Your task to perform on an android device: change the upload size in google photos Image 0: 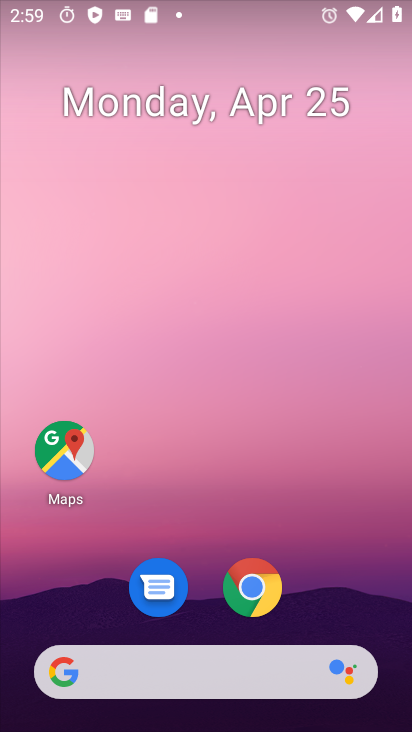
Step 0: drag from (349, 605) to (328, 192)
Your task to perform on an android device: change the upload size in google photos Image 1: 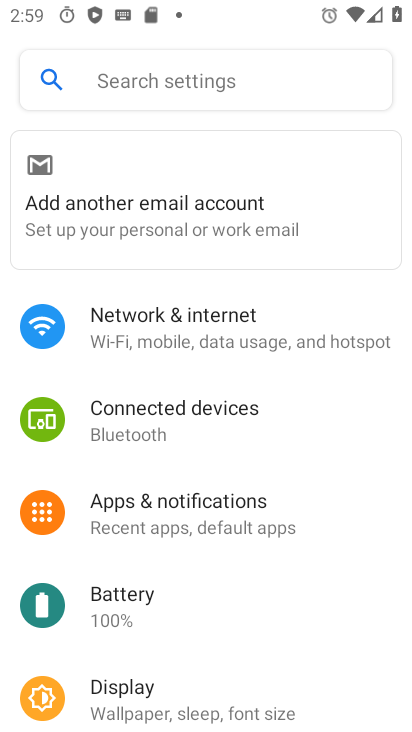
Step 1: press home button
Your task to perform on an android device: change the upload size in google photos Image 2: 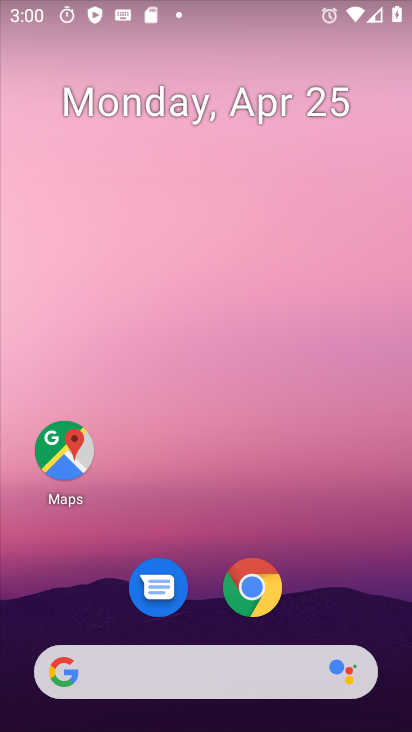
Step 2: drag from (330, 622) to (259, 257)
Your task to perform on an android device: change the upload size in google photos Image 3: 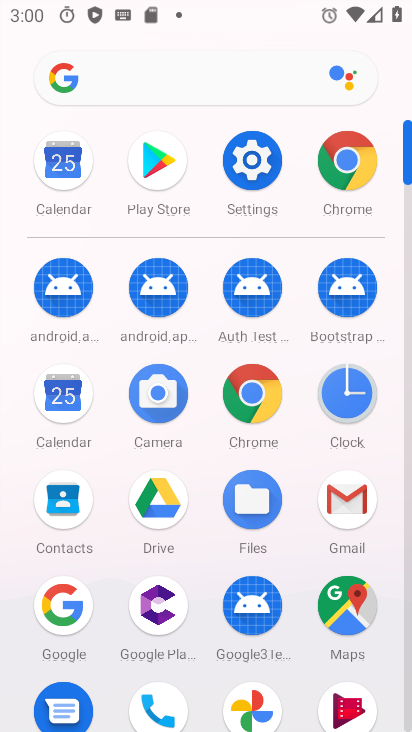
Step 3: drag from (293, 671) to (298, 238)
Your task to perform on an android device: change the upload size in google photos Image 4: 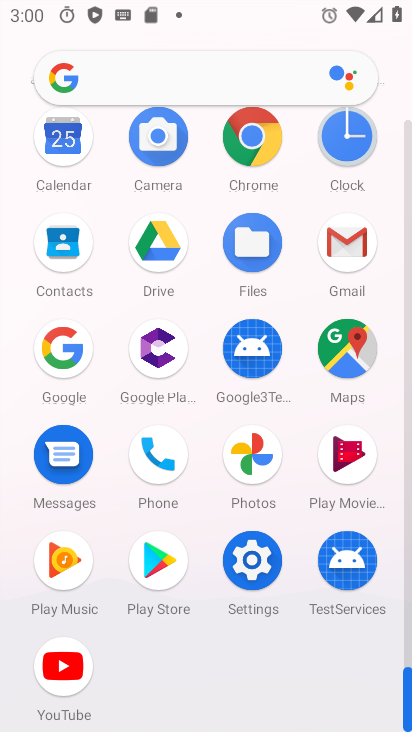
Step 4: click (253, 466)
Your task to perform on an android device: change the upload size in google photos Image 5: 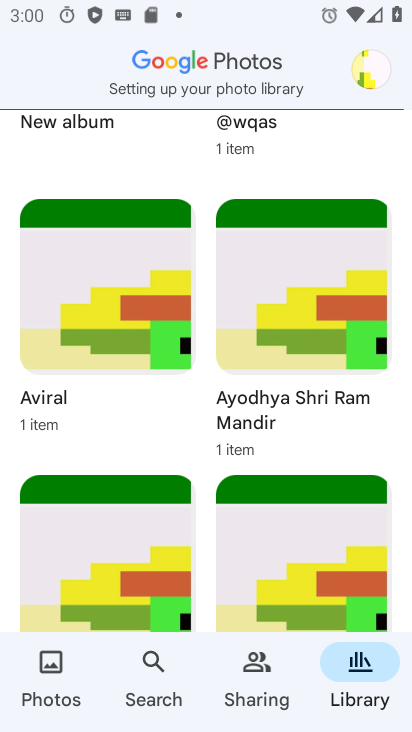
Step 5: drag from (204, 158) to (249, 727)
Your task to perform on an android device: change the upload size in google photos Image 6: 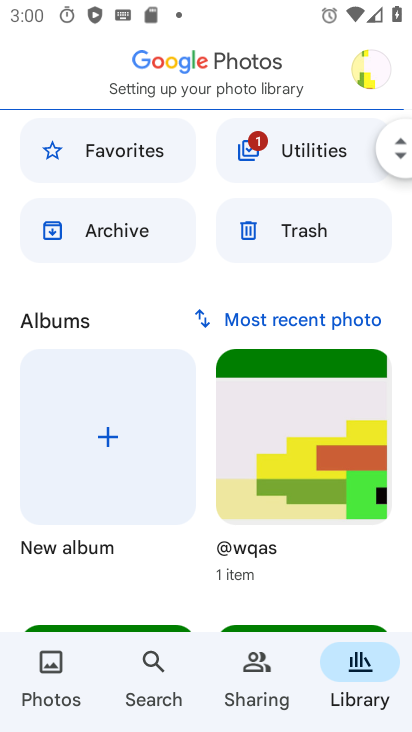
Step 6: click (366, 71)
Your task to perform on an android device: change the upload size in google photos Image 7: 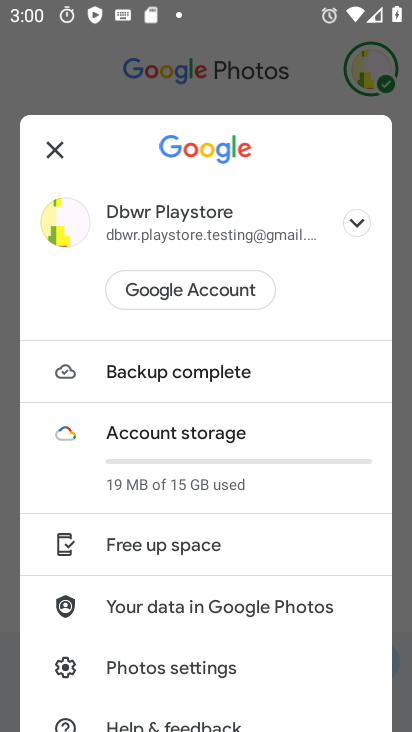
Step 7: click (209, 371)
Your task to perform on an android device: change the upload size in google photos Image 8: 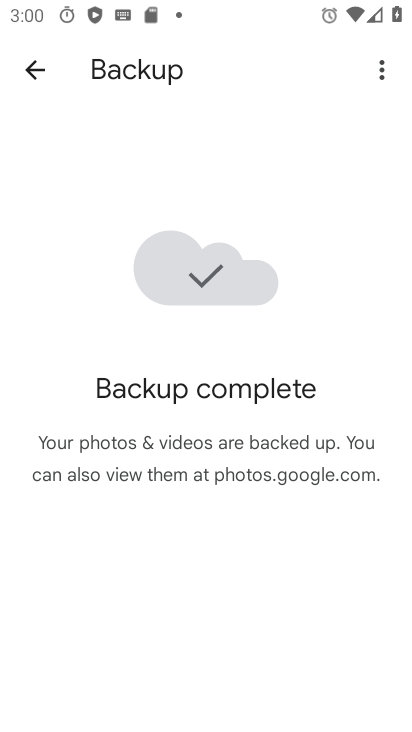
Step 8: click (33, 65)
Your task to perform on an android device: change the upload size in google photos Image 9: 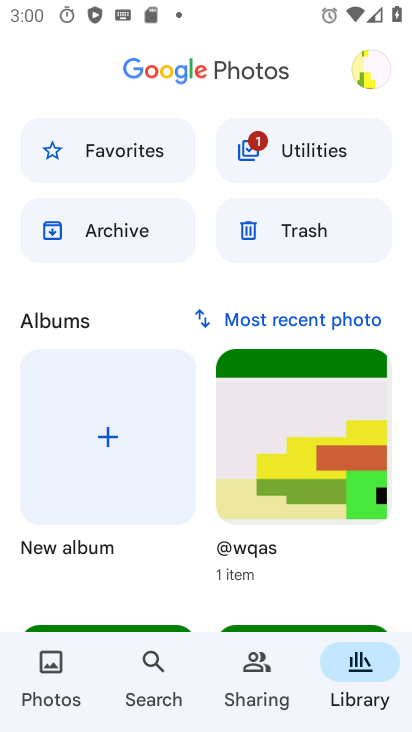
Step 9: click (368, 64)
Your task to perform on an android device: change the upload size in google photos Image 10: 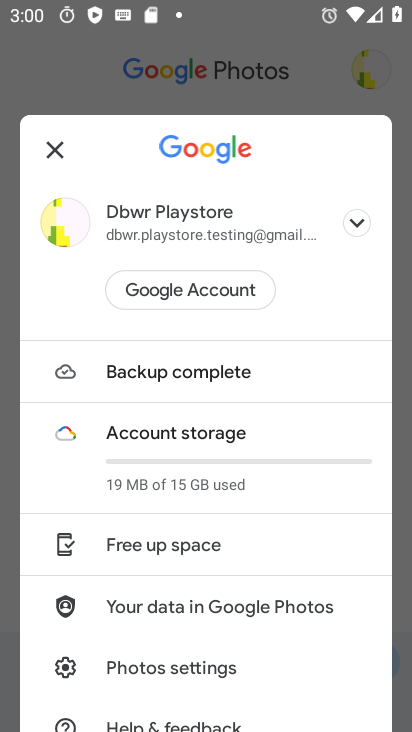
Step 10: click (202, 442)
Your task to perform on an android device: change the upload size in google photos Image 11: 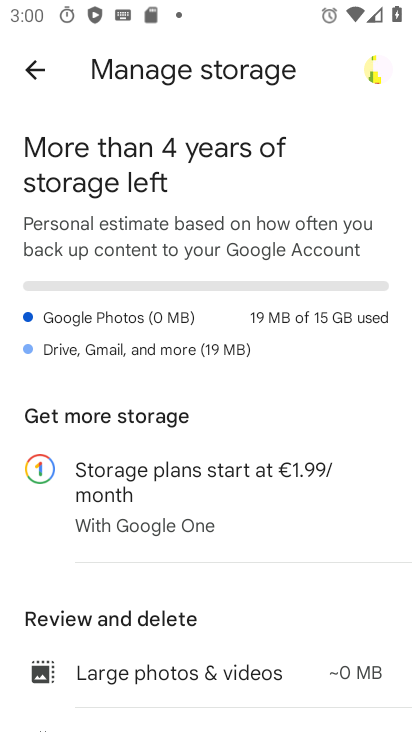
Step 11: drag from (224, 558) to (272, 132)
Your task to perform on an android device: change the upload size in google photos Image 12: 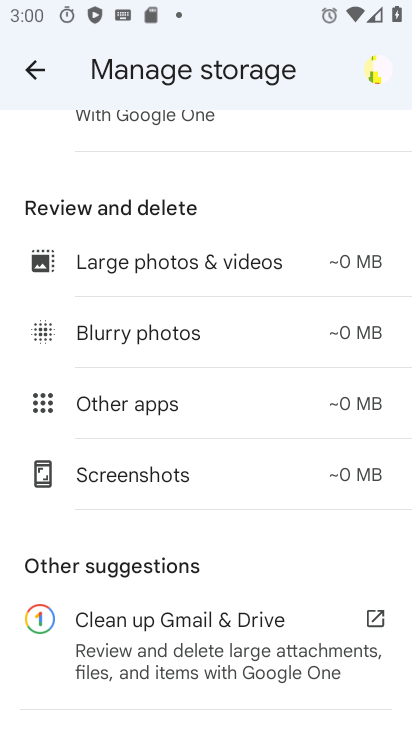
Step 12: drag from (232, 595) to (272, 690)
Your task to perform on an android device: change the upload size in google photos Image 13: 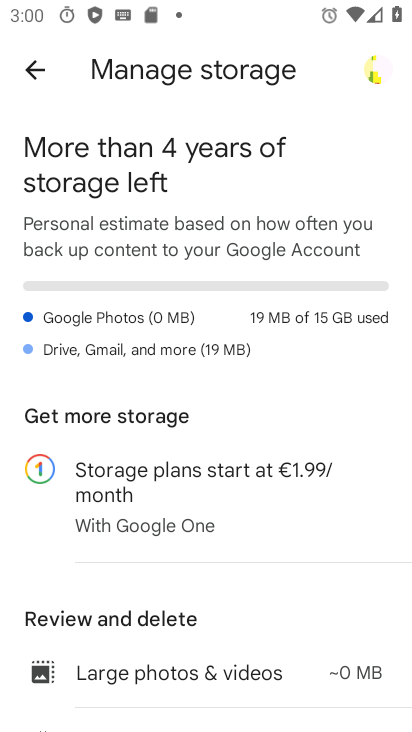
Step 13: click (184, 304)
Your task to perform on an android device: change the upload size in google photos Image 14: 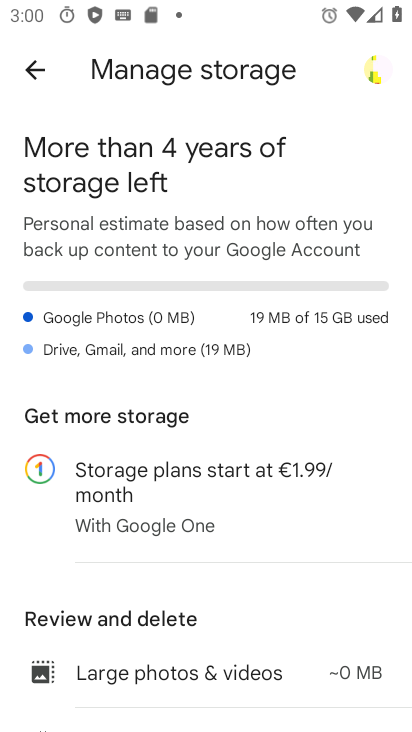
Step 14: drag from (213, 480) to (282, 230)
Your task to perform on an android device: change the upload size in google photos Image 15: 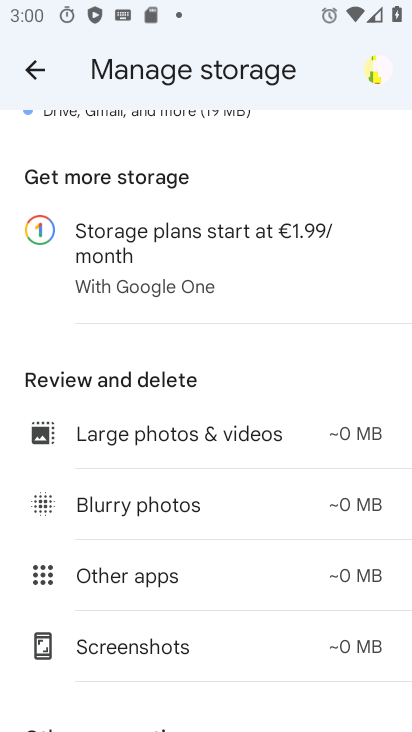
Step 15: drag from (268, 460) to (319, 196)
Your task to perform on an android device: change the upload size in google photos Image 16: 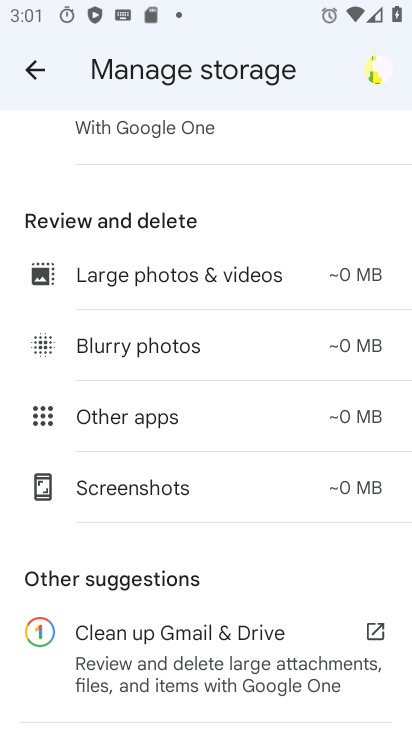
Step 16: drag from (202, 644) to (263, 218)
Your task to perform on an android device: change the upload size in google photos Image 17: 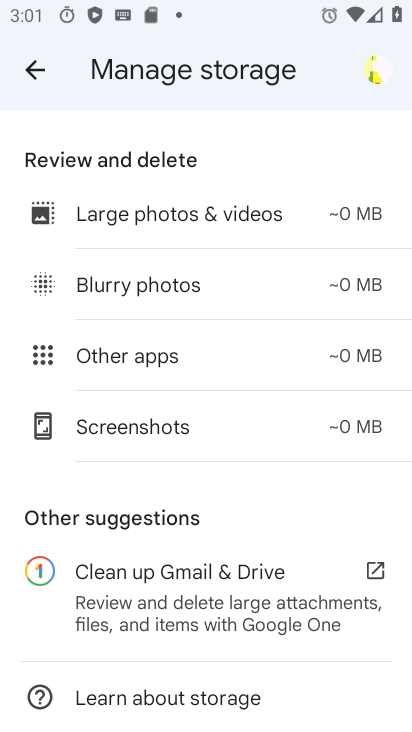
Step 17: click (32, 75)
Your task to perform on an android device: change the upload size in google photos Image 18: 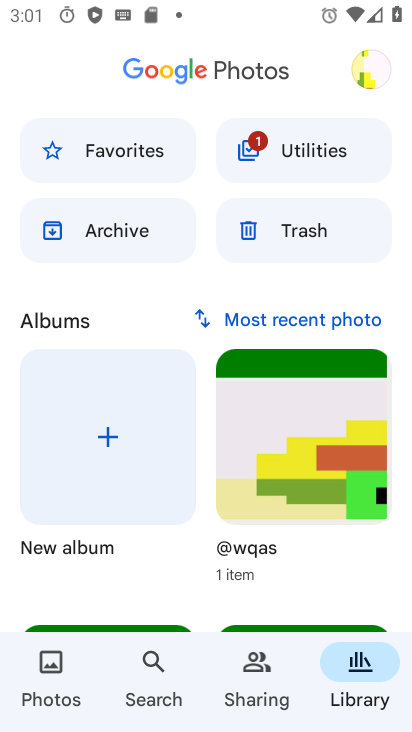
Step 18: click (372, 77)
Your task to perform on an android device: change the upload size in google photos Image 19: 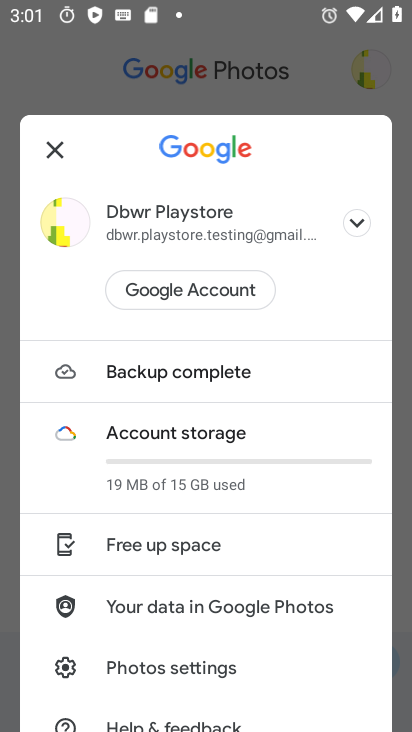
Step 19: drag from (268, 665) to (320, 357)
Your task to perform on an android device: change the upload size in google photos Image 20: 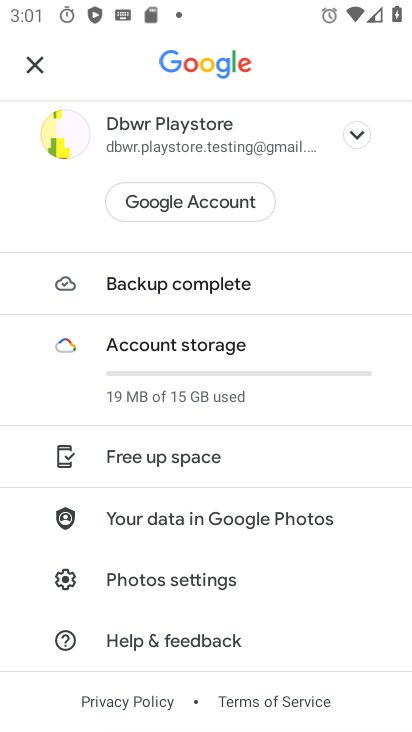
Step 20: click (194, 587)
Your task to perform on an android device: change the upload size in google photos Image 21: 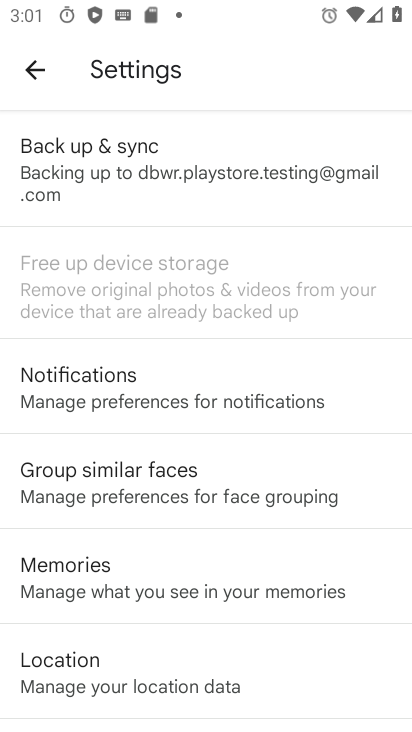
Step 21: drag from (299, 516) to (334, 12)
Your task to perform on an android device: change the upload size in google photos Image 22: 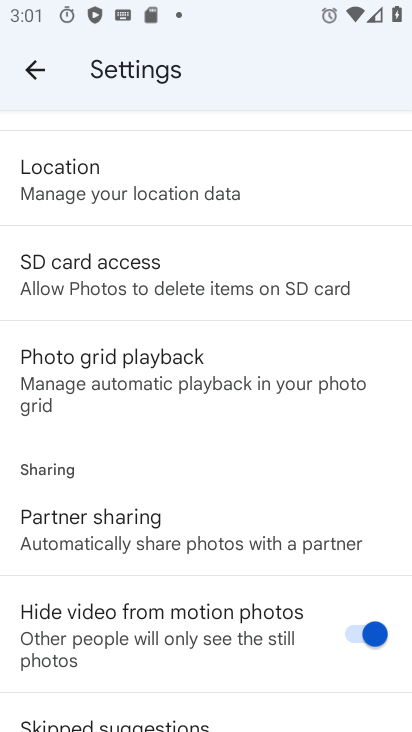
Step 22: drag from (198, 531) to (325, 116)
Your task to perform on an android device: change the upload size in google photos Image 23: 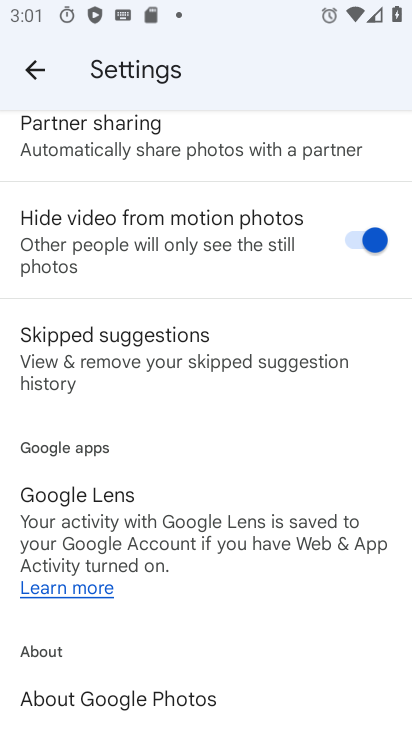
Step 23: drag from (267, 290) to (273, 704)
Your task to perform on an android device: change the upload size in google photos Image 24: 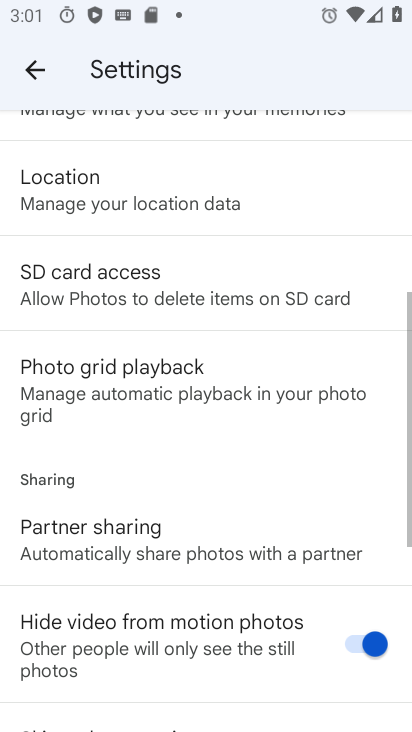
Step 24: drag from (246, 224) to (264, 669)
Your task to perform on an android device: change the upload size in google photos Image 25: 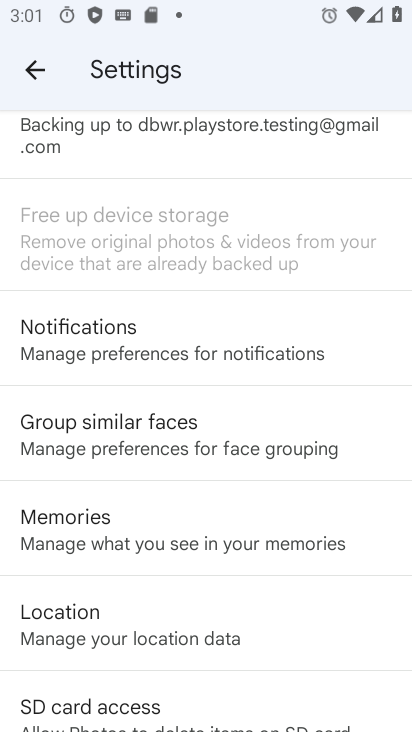
Step 25: drag from (280, 233) to (320, 595)
Your task to perform on an android device: change the upload size in google photos Image 26: 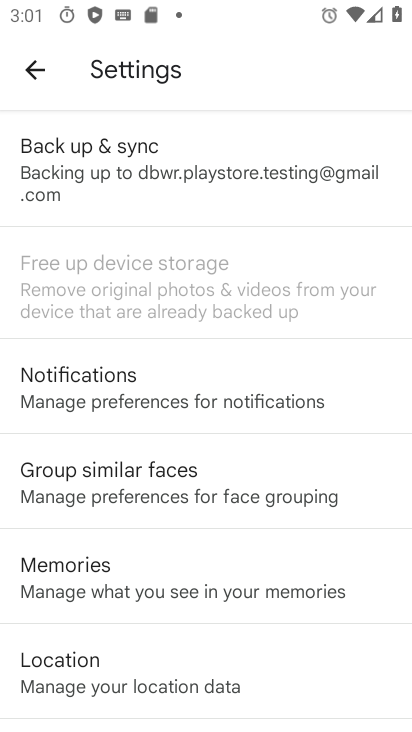
Step 26: click (262, 151)
Your task to perform on an android device: change the upload size in google photos Image 27: 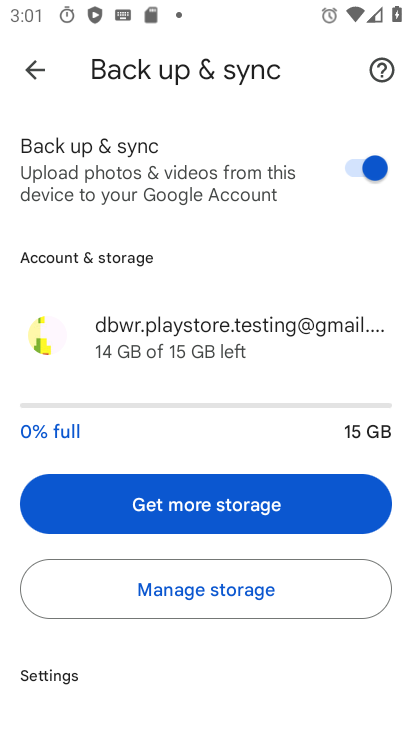
Step 27: drag from (221, 430) to (280, 47)
Your task to perform on an android device: change the upload size in google photos Image 28: 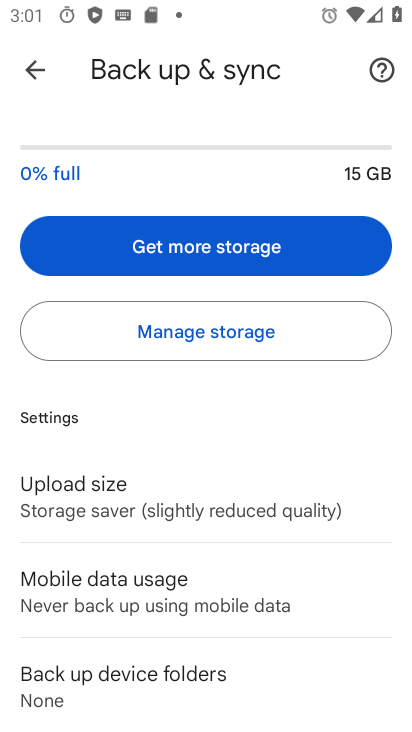
Step 28: drag from (274, 560) to (251, 121)
Your task to perform on an android device: change the upload size in google photos Image 29: 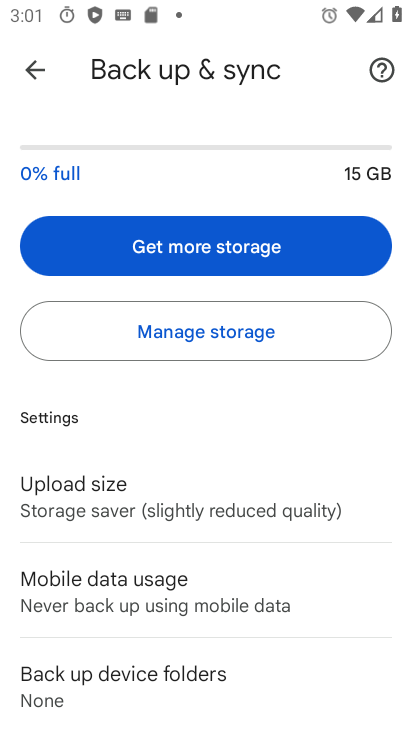
Step 29: click (200, 497)
Your task to perform on an android device: change the upload size in google photos Image 30: 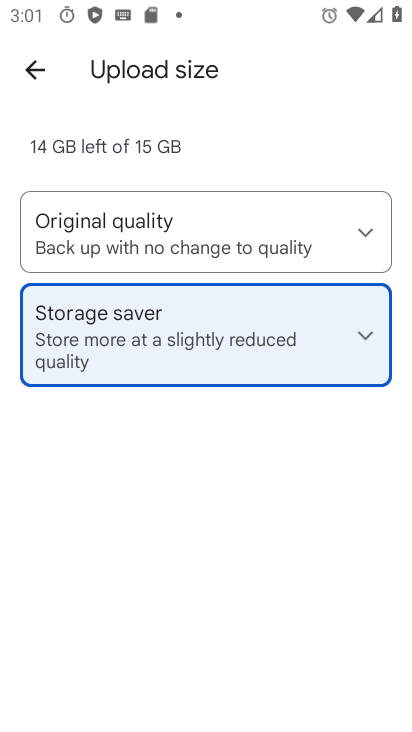
Step 30: click (168, 228)
Your task to perform on an android device: change the upload size in google photos Image 31: 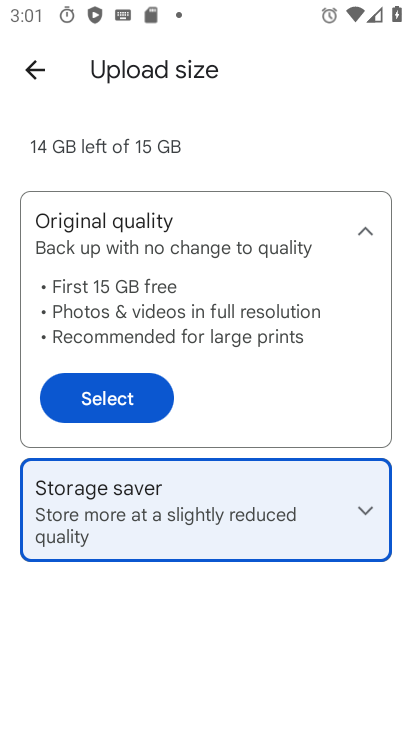
Step 31: click (82, 415)
Your task to perform on an android device: change the upload size in google photos Image 32: 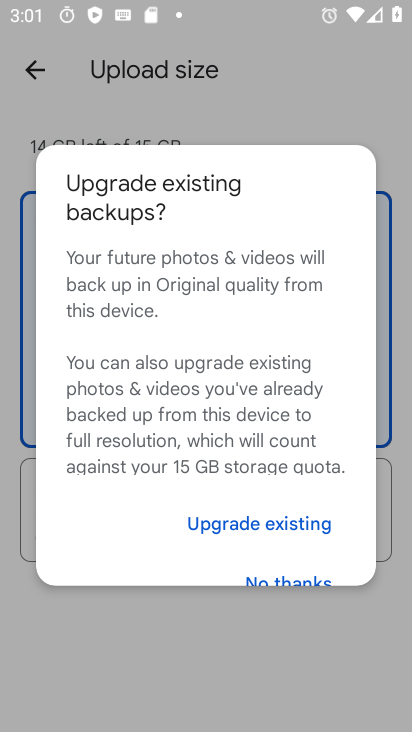
Step 32: drag from (320, 538) to (300, 158)
Your task to perform on an android device: change the upload size in google photos Image 33: 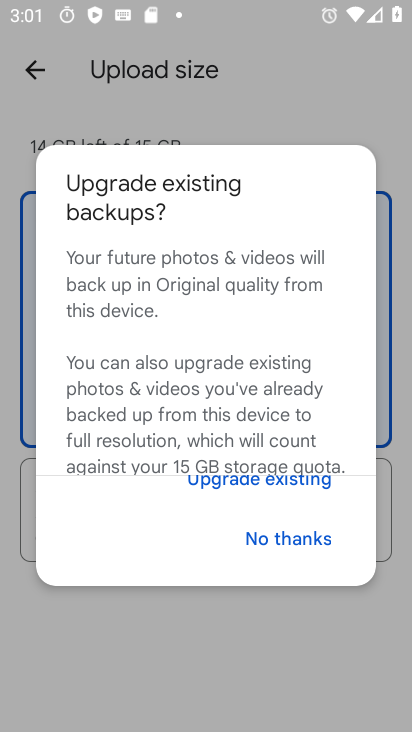
Step 33: click (305, 537)
Your task to perform on an android device: change the upload size in google photos Image 34: 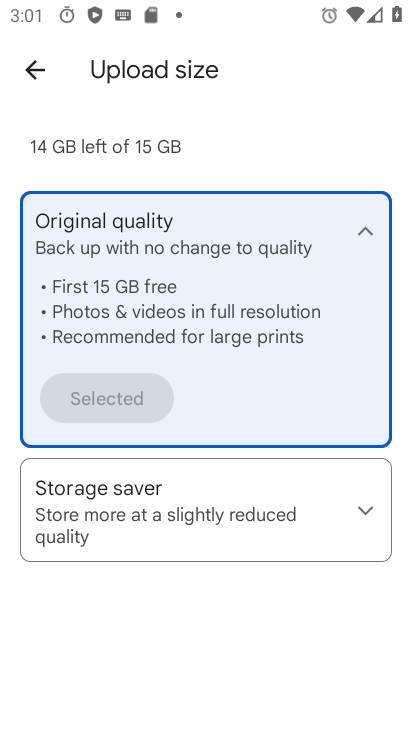
Step 34: task complete